Your task to perform on an android device: turn on improve location accuracy Image 0: 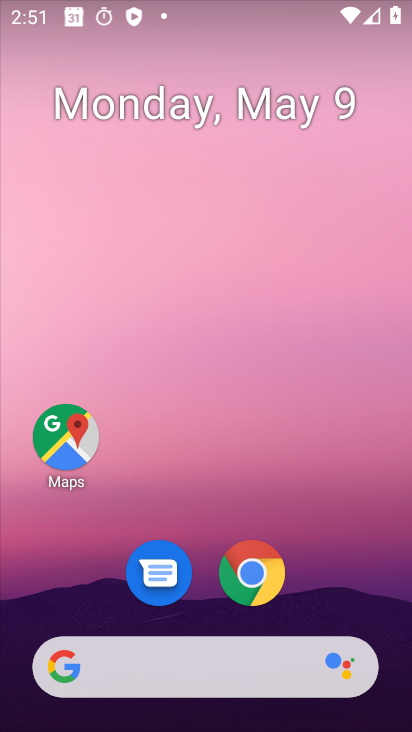
Step 0: drag from (333, 501) to (198, 144)
Your task to perform on an android device: turn on improve location accuracy Image 1: 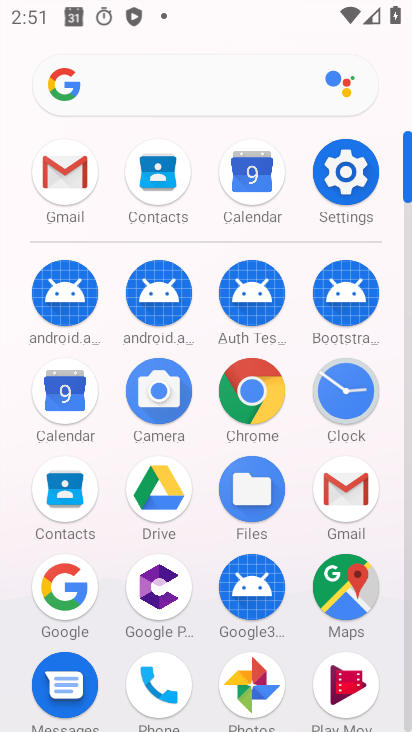
Step 1: click (345, 190)
Your task to perform on an android device: turn on improve location accuracy Image 2: 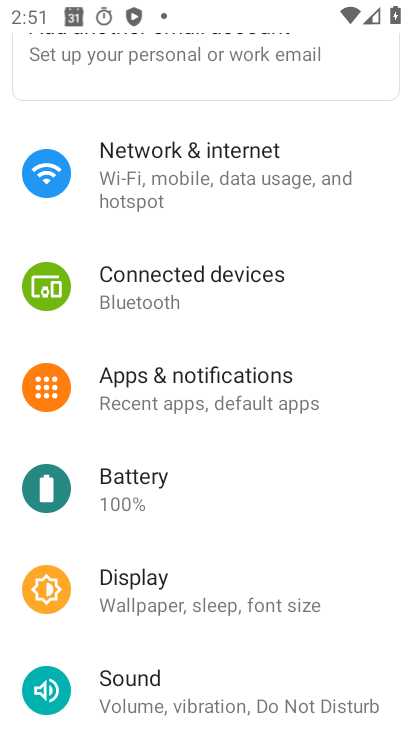
Step 2: drag from (190, 493) to (203, 140)
Your task to perform on an android device: turn on improve location accuracy Image 3: 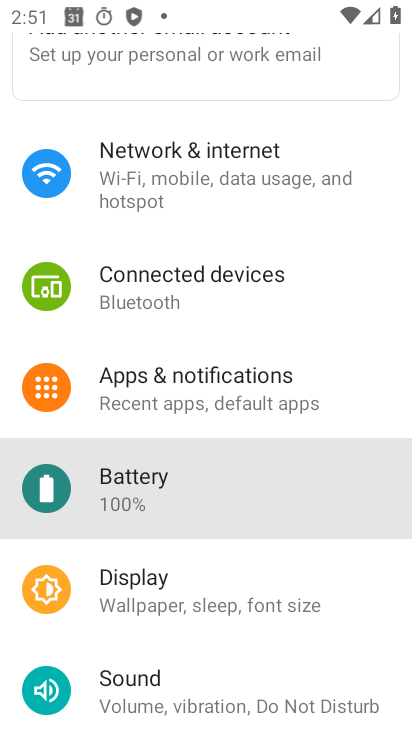
Step 3: drag from (218, 421) to (214, 165)
Your task to perform on an android device: turn on improve location accuracy Image 4: 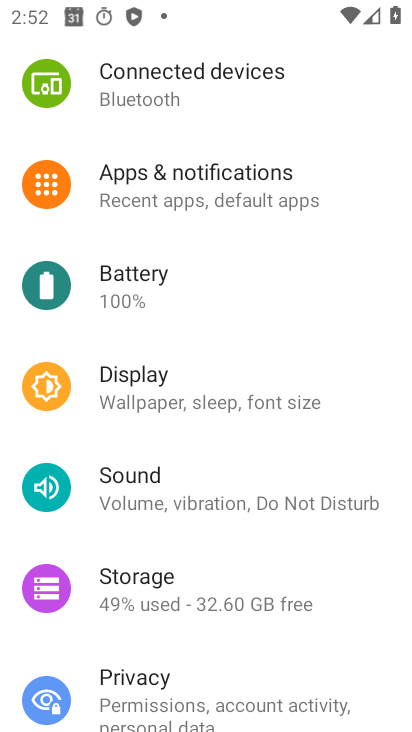
Step 4: drag from (176, 672) to (132, 46)
Your task to perform on an android device: turn on improve location accuracy Image 5: 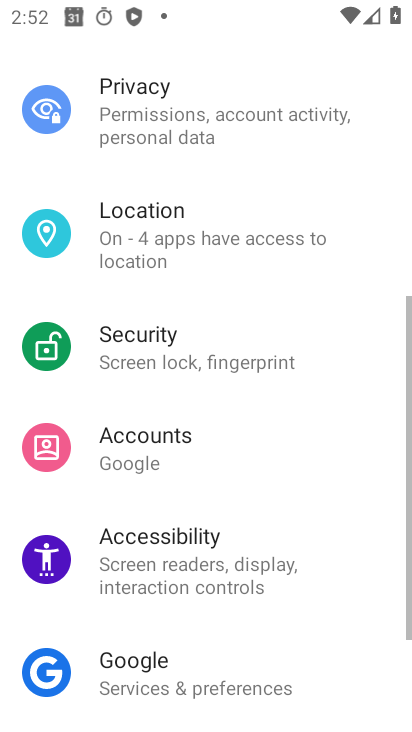
Step 5: drag from (207, 435) to (132, 38)
Your task to perform on an android device: turn on improve location accuracy Image 6: 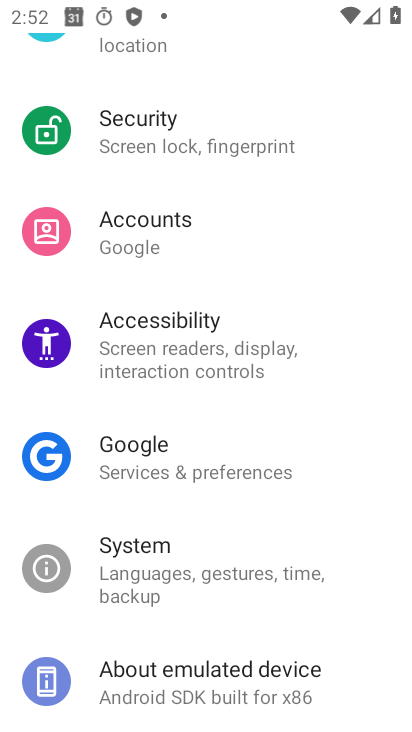
Step 6: drag from (173, 520) to (257, 151)
Your task to perform on an android device: turn on improve location accuracy Image 7: 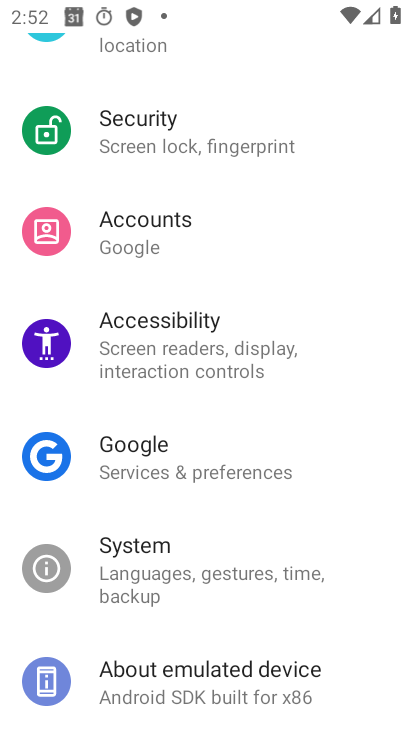
Step 7: drag from (148, 319) to (257, 594)
Your task to perform on an android device: turn on improve location accuracy Image 8: 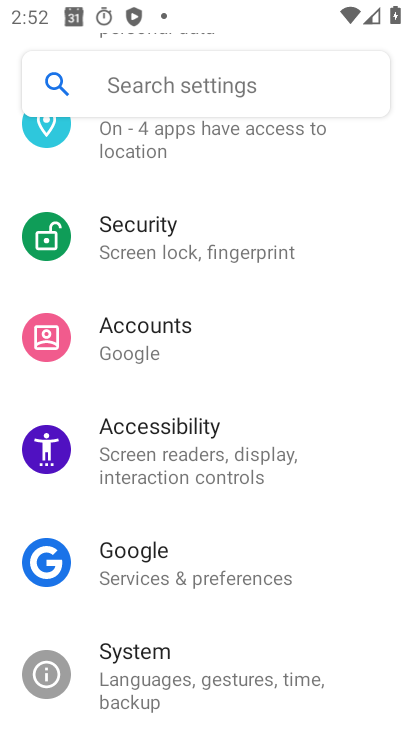
Step 8: drag from (166, 253) to (198, 464)
Your task to perform on an android device: turn on improve location accuracy Image 9: 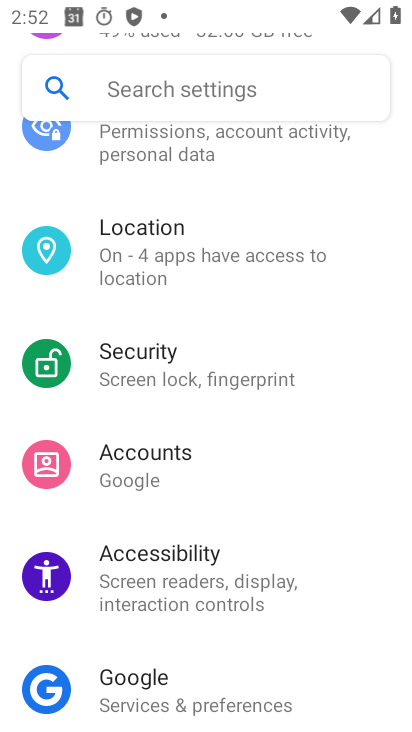
Step 9: drag from (212, 458) to (232, 675)
Your task to perform on an android device: turn on improve location accuracy Image 10: 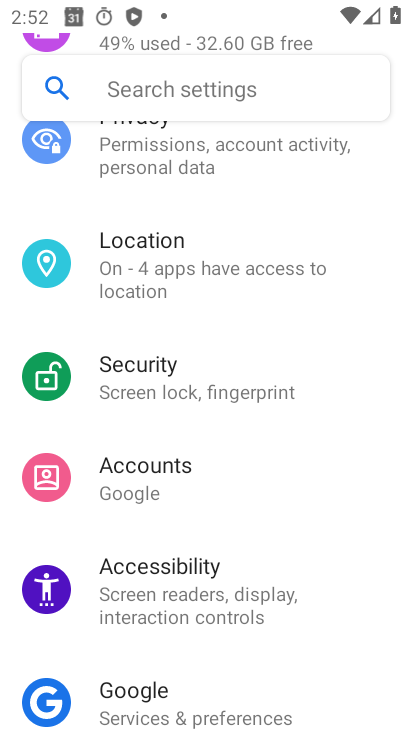
Step 10: drag from (169, 297) to (209, 649)
Your task to perform on an android device: turn on improve location accuracy Image 11: 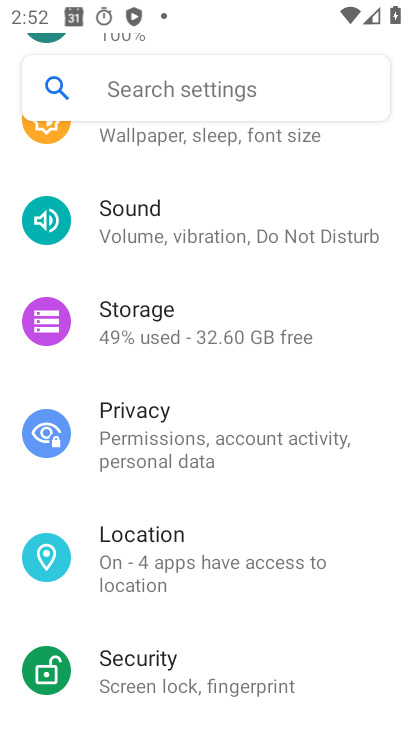
Step 11: drag from (139, 239) to (189, 606)
Your task to perform on an android device: turn on improve location accuracy Image 12: 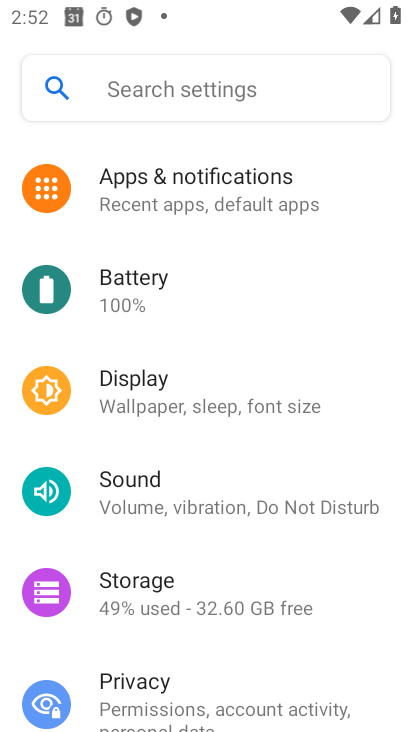
Step 12: drag from (179, 646) to (144, 267)
Your task to perform on an android device: turn on improve location accuracy Image 13: 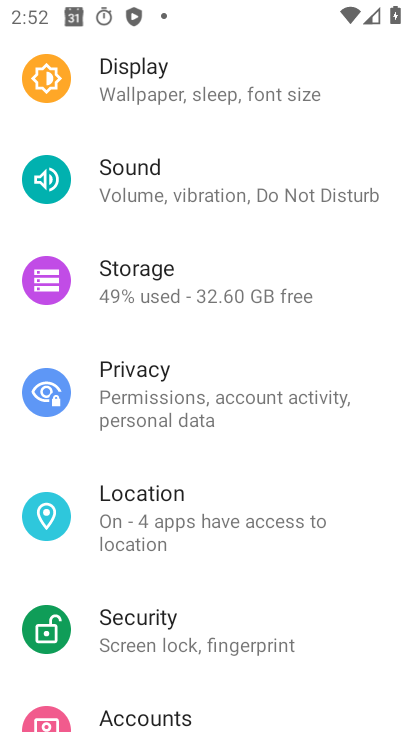
Step 13: click (173, 512)
Your task to perform on an android device: turn on improve location accuracy Image 14: 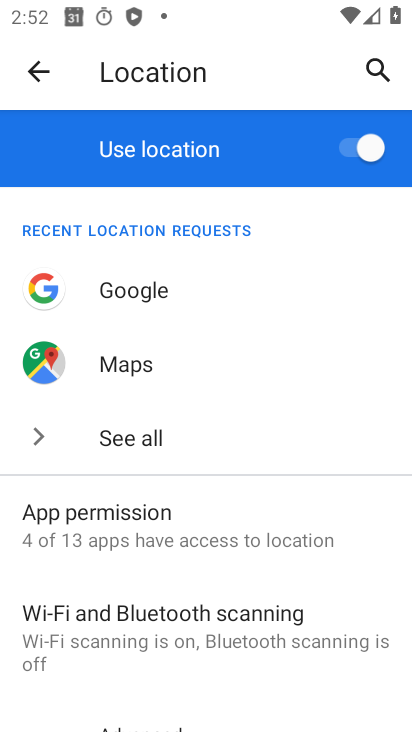
Step 14: task complete